Your task to perform on an android device: turn off picture-in-picture Image 0: 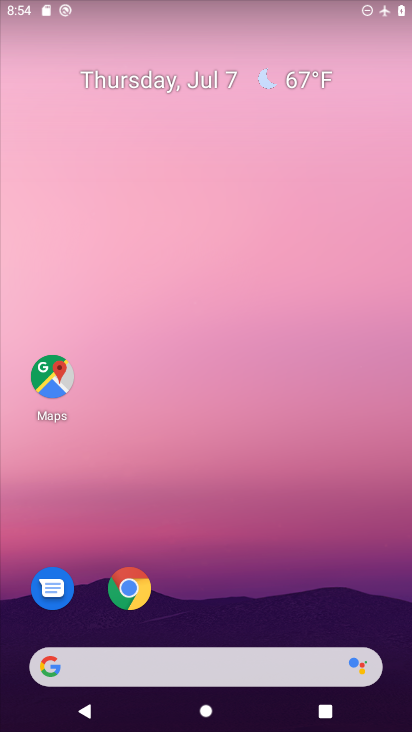
Step 0: click (129, 588)
Your task to perform on an android device: turn off picture-in-picture Image 1: 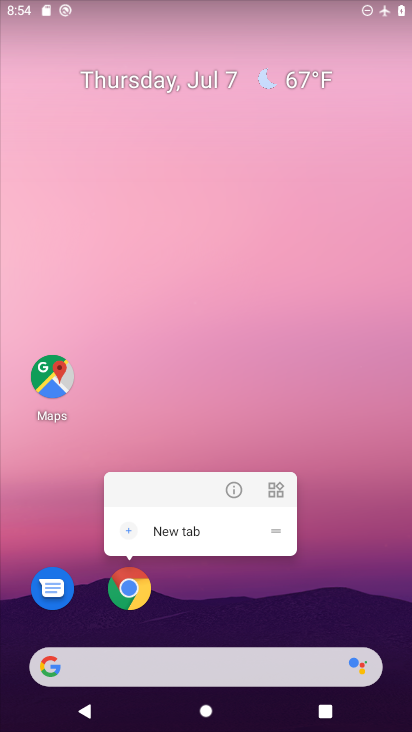
Step 1: click (234, 485)
Your task to perform on an android device: turn off picture-in-picture Image 2: 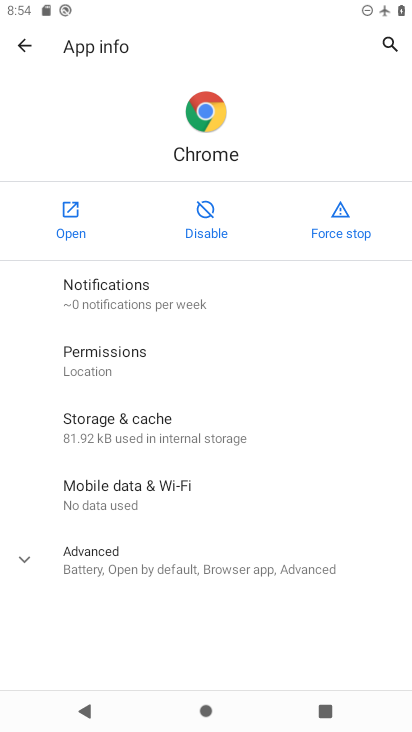
Step 2: click (135, 565)
Your task to perform on an android device: turn off picture-in-picture Image 3: 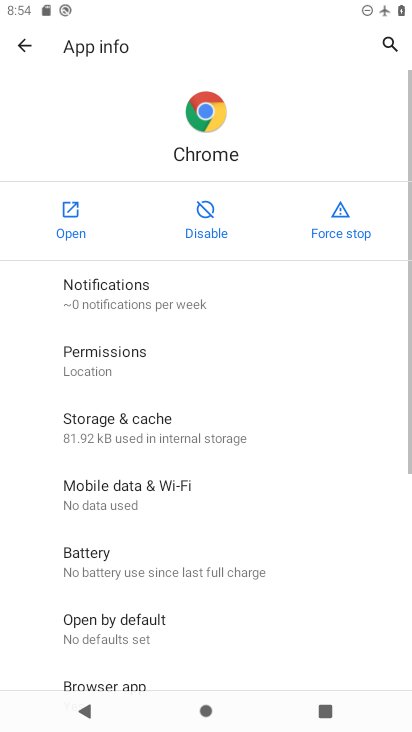
Step 3: drag from (148, 551) to (173, 408)
Your task to perform on an android device: turn off picture-in-picture Image 4: 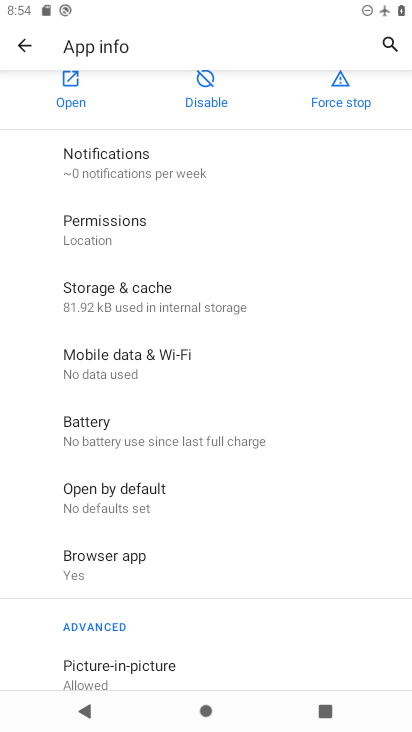
Step 4: drag from (145, 581) to (200, 438)
Your task to perform on an android device: turn off picture-in-picture Image 5: 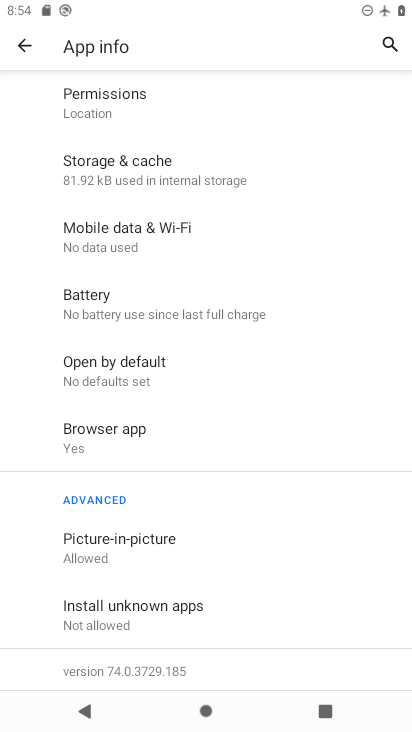
Step 5: click (149, 536)
Your task to perform on an android device: turn off picture-in-picture Image 6: 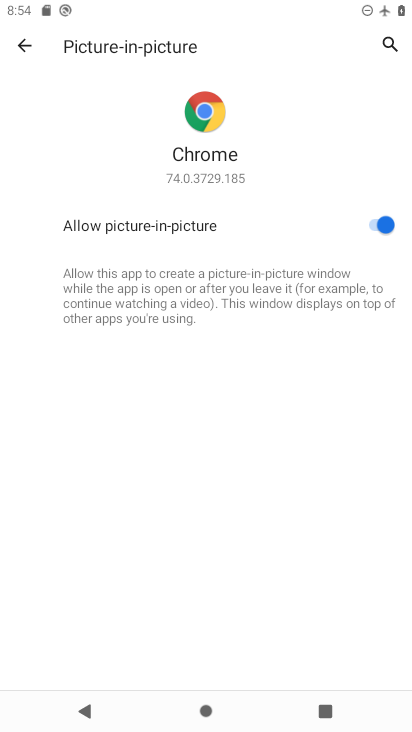
Step 6: click (381, 217)
Your task to perform on an android device: turn off picture-in-picture Image 7: 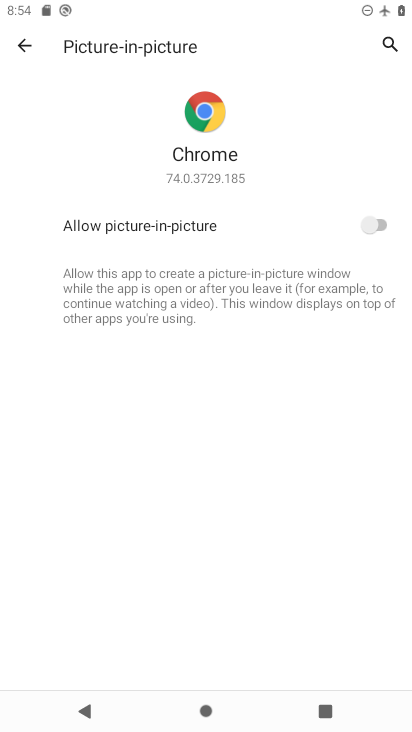
Step 7: task complete